Your task to perform on an android device: see creations saved in the google photos Image 0: 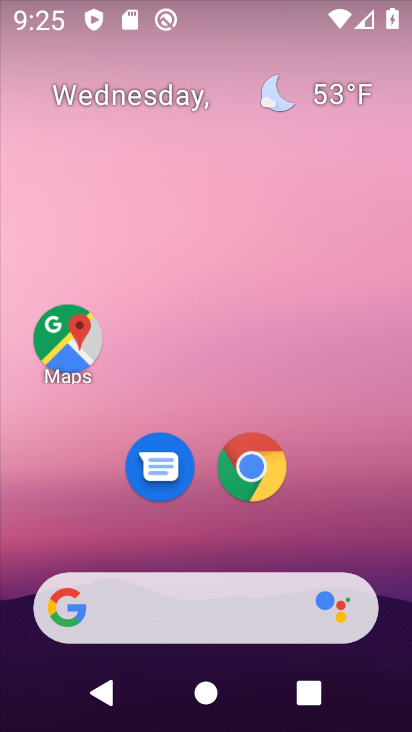
Step 0: press home button
Your task to perform on an android device: see creations saved in the google photos Image 1: 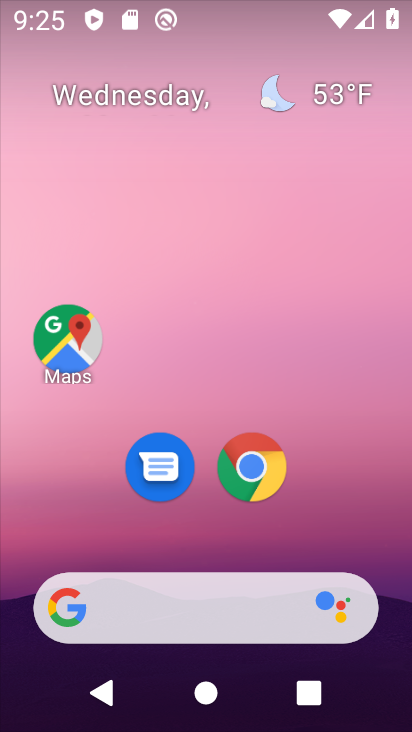
Step 1: drag from (300, 544) to (398, 92)
Your task to perform on an android device: see creations saved in the google photos Image 2: 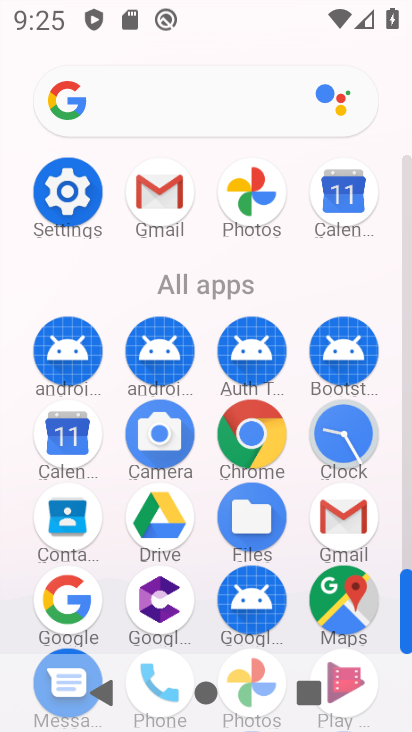
Step 2: click (247, 190)
Your task to perform on an android device: see creations saved in the google photos Image 3: 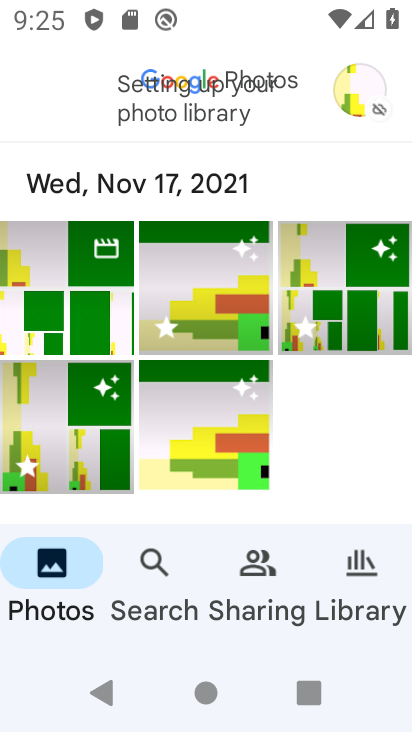
Step 3: click (148, 572)
Your task to perform on an android device: see creations saved in the google photos Image 4: 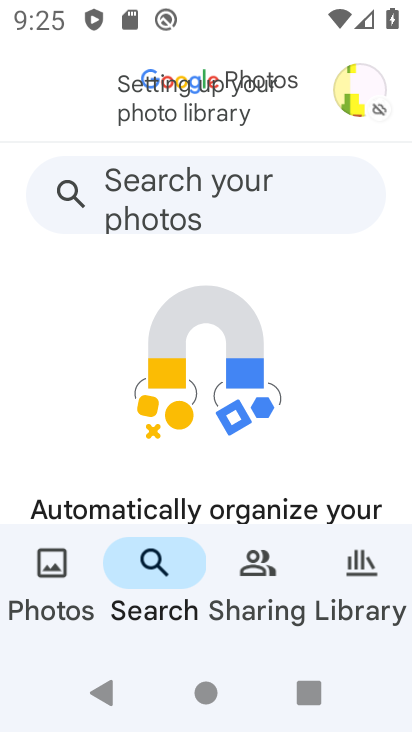
Step 4: click (222, 192)
Your task to perform on an android device: see creations saved in the google photos Image 5: 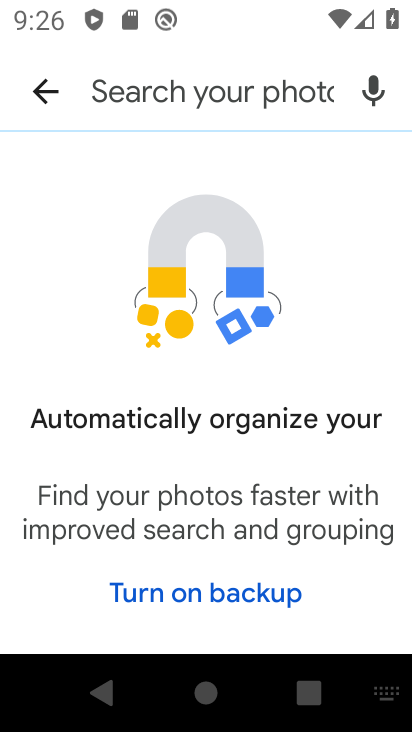
Step 5: click (202, 106)
Your task to perform on an android device: see creations saved in the google photos Image 6: 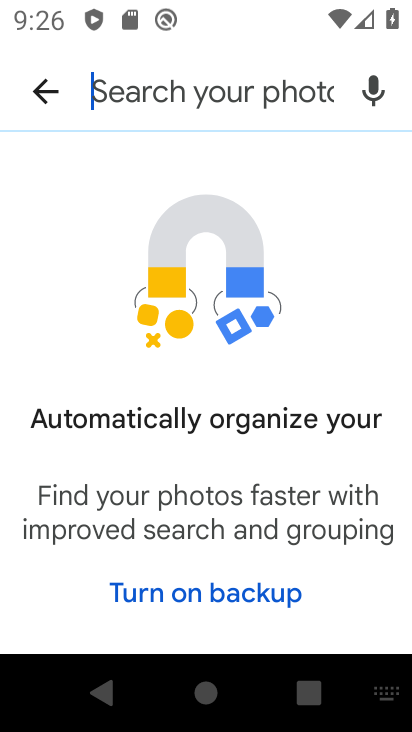
Step 6: drag from (242, 378) to (259, 116)
Your task to perform on an android device: see creations saved in the google photos Image 7: 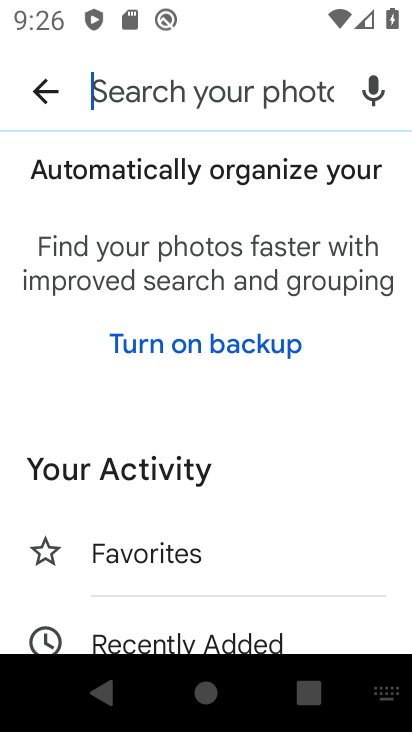
Step 7: drag from (269, 504) to (283, 163)
Your task to perform on an android device: see creations saved in the google photos Image 8: 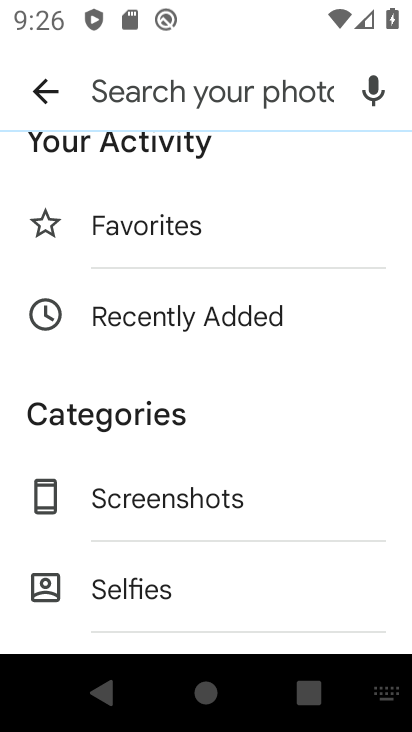
Step 8: drag from (349, 511) to (364, 211)
Your task to perform on an android device: see creations saved in the google photos Image 9: 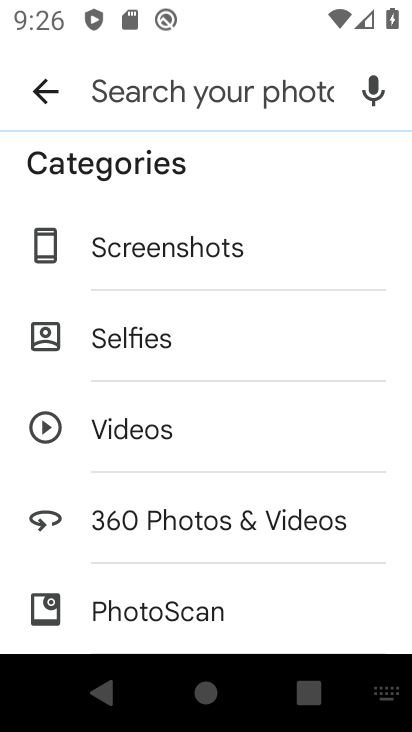
Step 9: drag from (228, 441) to (368, 121)
Your task to perform on an android device: see creations saved in the google photos Image 10: 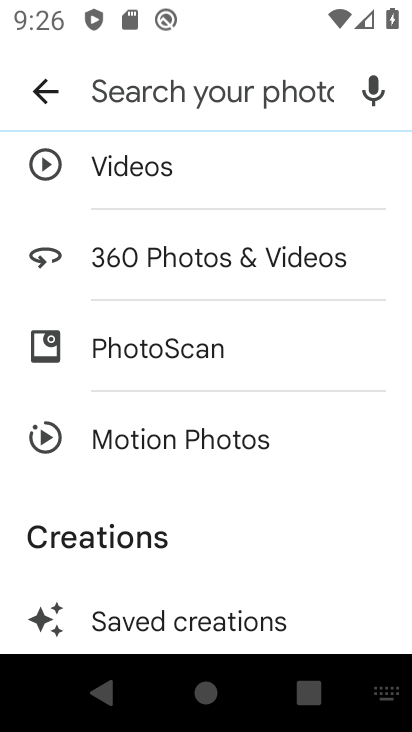
Step 10: drag from (251, 506) to (370, 151)
Your task to perform on an android device: see creations saved in the google photos Image 11: 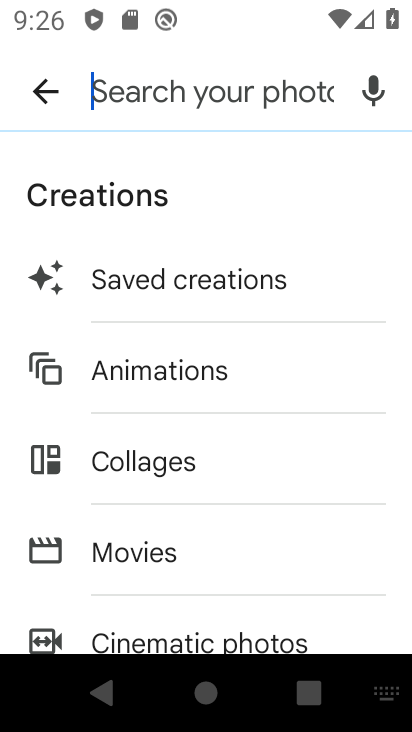
Step 11: click (272, 293)
Your task to perform on an android device: see creations saved in the google photos Image 12: 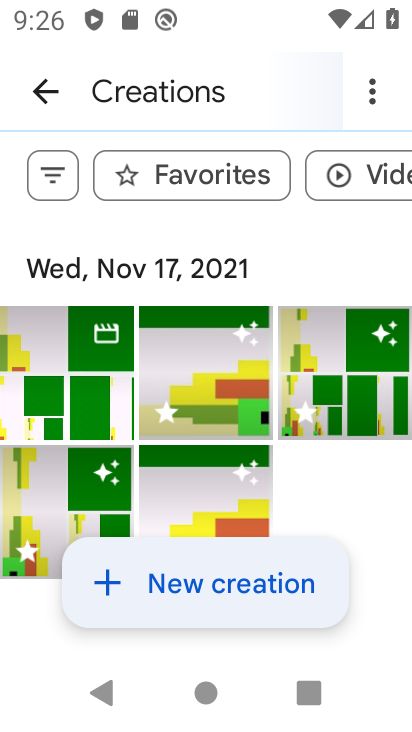
Step 12: task complete